Your task to perform on an android device: turn on javascript in the chrome app Image 0: 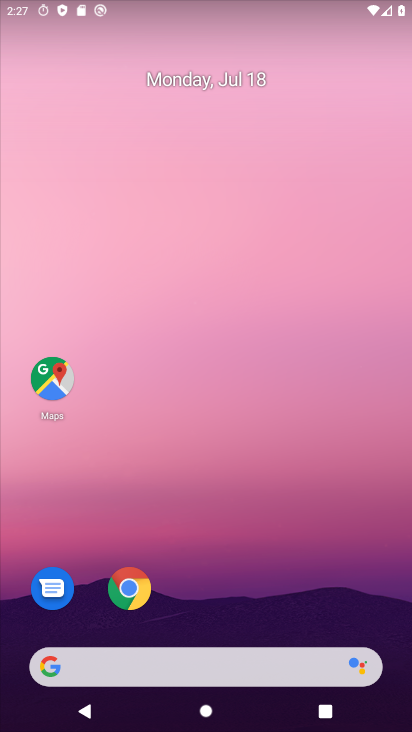
Step 0: drag from (244, 604) to (338, 2)
Your task to perform on an android device: turn on javascript in the chrome app Image 1: 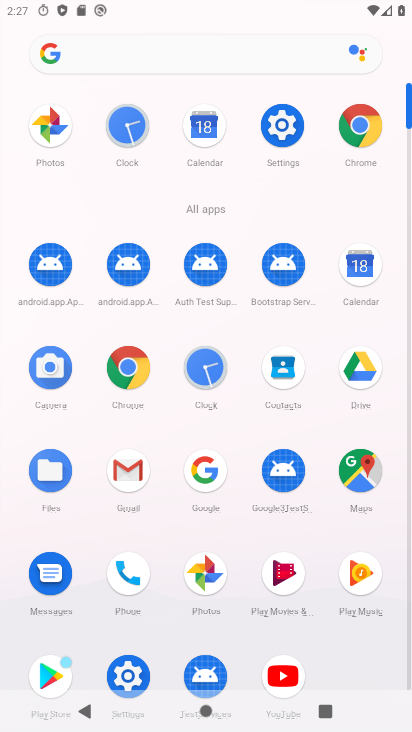
Step 1: click (376, 121)
Your task to perform on an android device: turn on javascript in the chrome app Image 2: 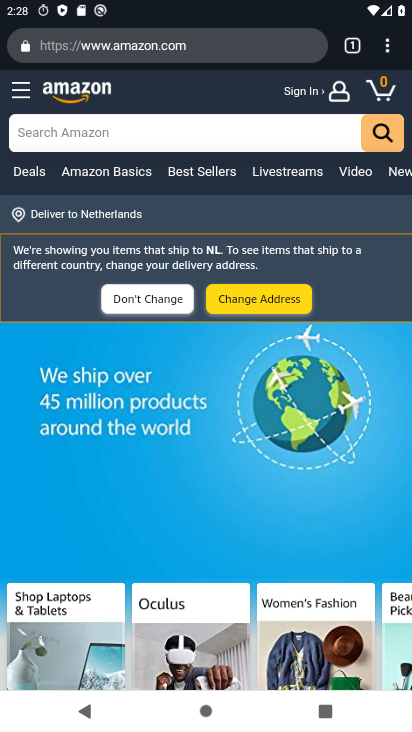
Step 2: drag from (391, 36) to (213, 542)
Your task to perform on an android device: turn on javascript in the chrome app Image 3: 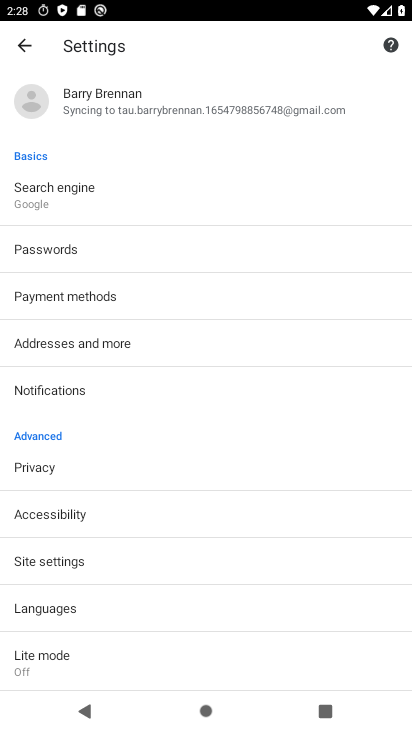
Step 3: click (84, 569)
Your task to perform on an android device: turn on javascript in the chrome app Image 4: 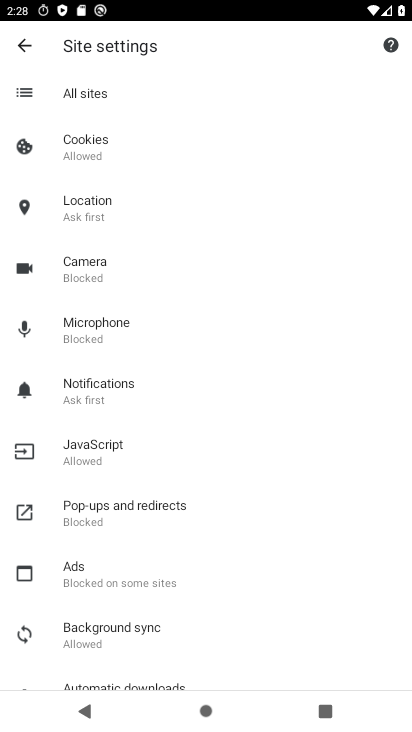
Step 4: click (128, 444)
Your task to perform on an android device: turn on javascript in the chrome app Image 5: 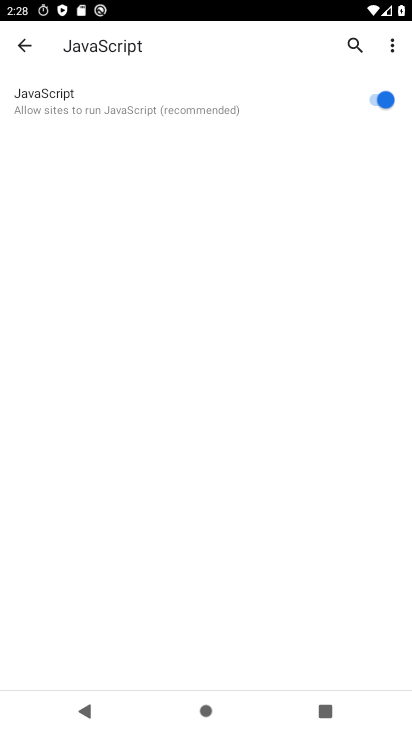
Step 5: task complete